Your task to perform on an android device: turn pop-ups off in chrome Image 0: 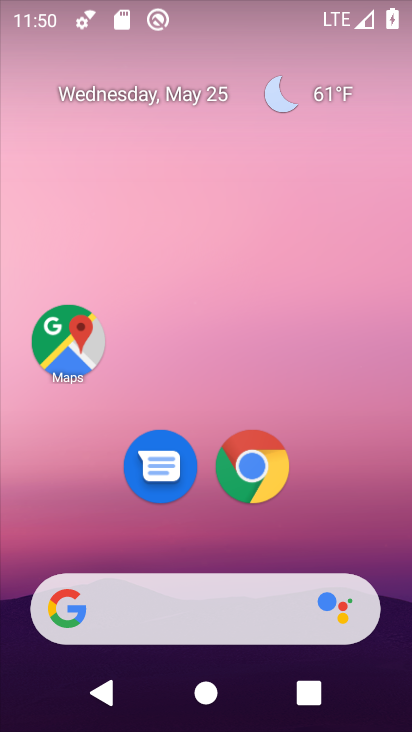
Step 0: drag from (240, 543) to (312, 57)
Your task to perform on an android device: turn pop-ups off in chrome Image 1: 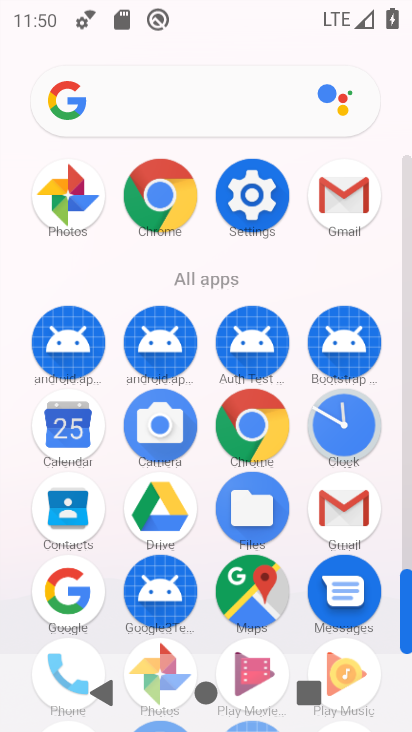
Step 1: click (178, 205)
Your task to perform on an android device: turn pop-ups off in chrome Image 2: 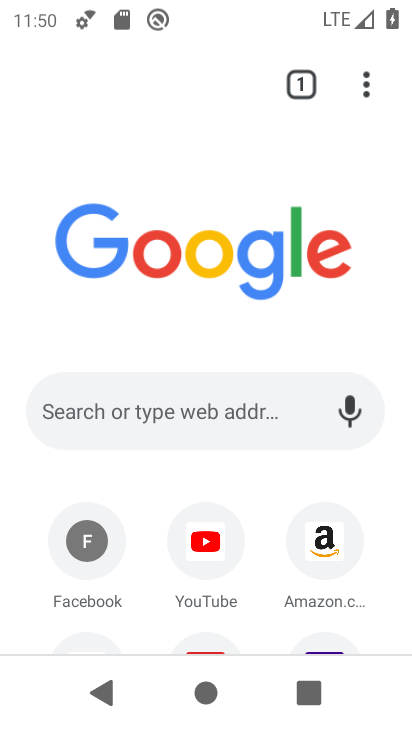
Step 2: click (372, 76)
Your task to perform on an android device: turn pop-ups off in chrome Image 3: 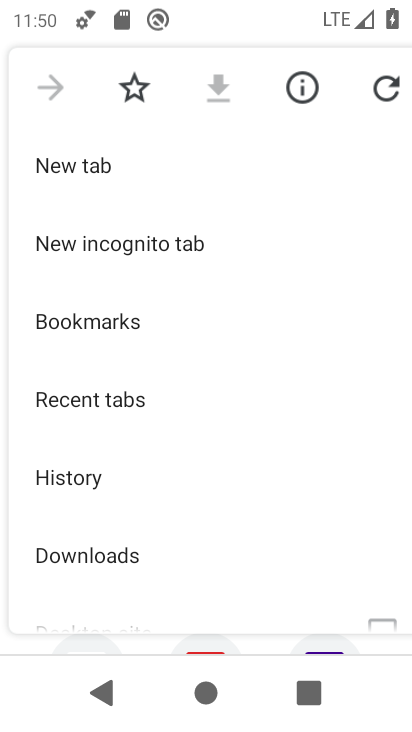
Step 3: drag from (160, 495) to (198, 149)
Your task to perform on an android device: turn pop-ups off in chrome Image 4: 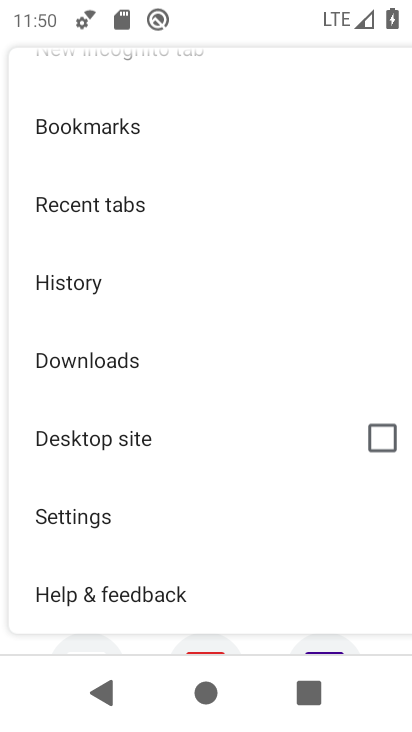
Step 4: click (80, 526)
Your task to perform on an android device: turn pop-ups off in chrome Image 5: 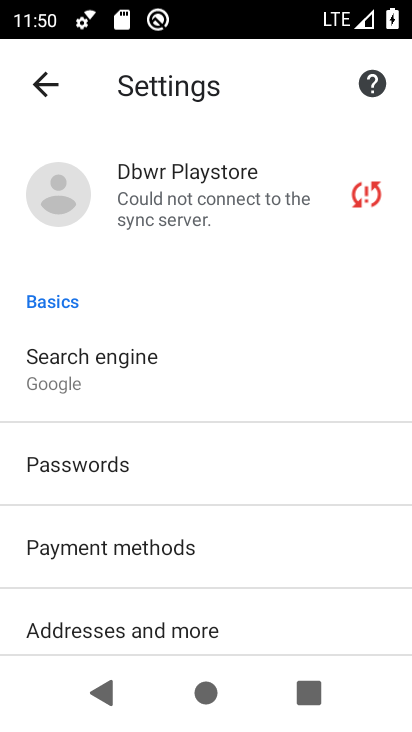
Step 5: drag from (202, 564) to (287, 257)
Your task to perform on an android device: turn pop-ups off in chrome Image 6: 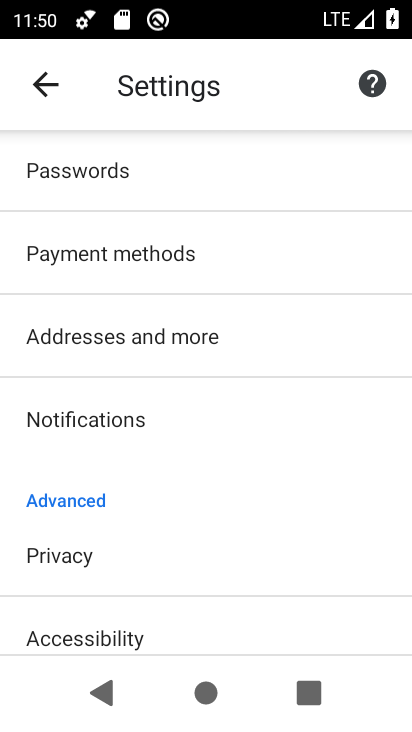
Step 6: drag from (225, 500) to (257, 351)
Your task to perform on an android device: turn pop-ups off in chrome Image 7: 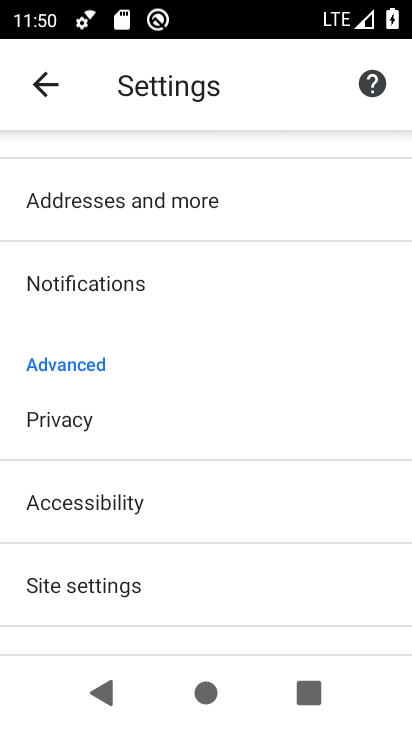
Step 7: drag from (138, 580) to (178, 388)
Your task to perform on an android device: turn pop-ups off in chrome Image 8: 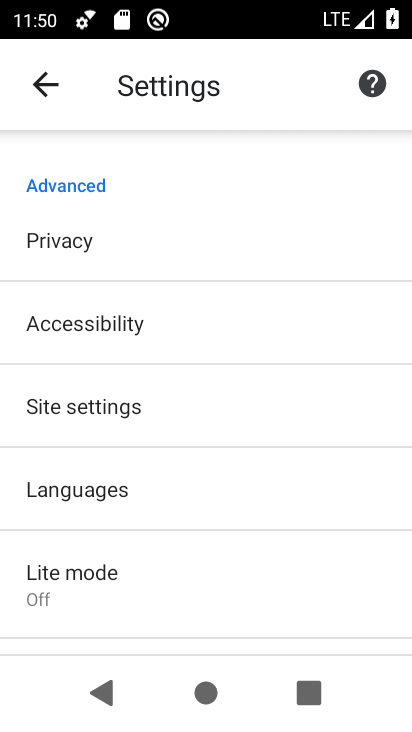
Step 8: click (128, 408)
Your task to perform on an android device: turn pop-ups off in chrome Image 9: 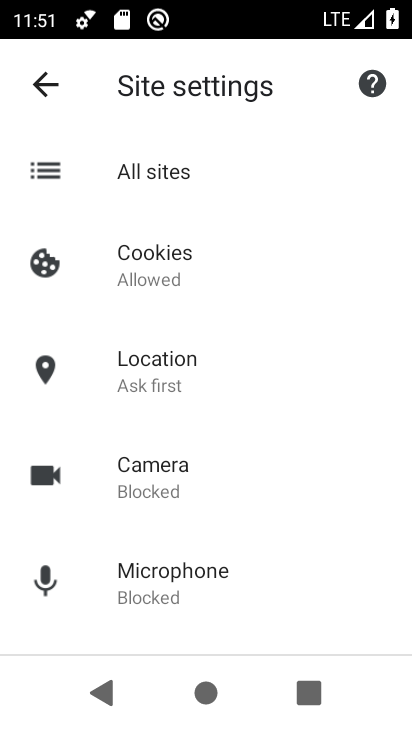
Step 9: drag from (209, 540) to (255, 291)
Your task to perform on an android device: turn pop-ups off in chrome Image 10: 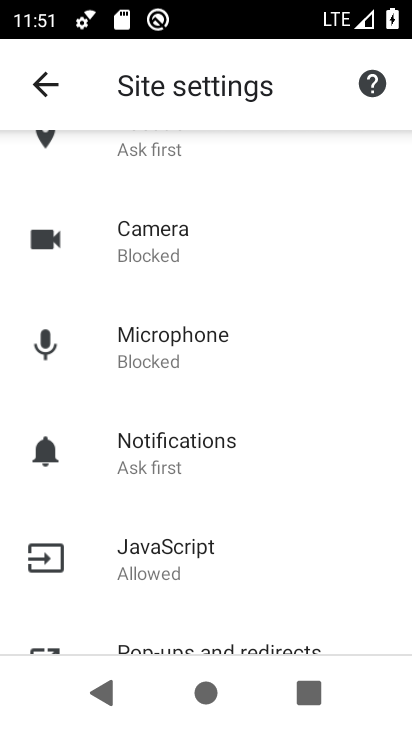
Step 10: drag from (190, 534) to (239, 263)
Your task to perform on an android device: turn pop-ups off in chrome Image 11: 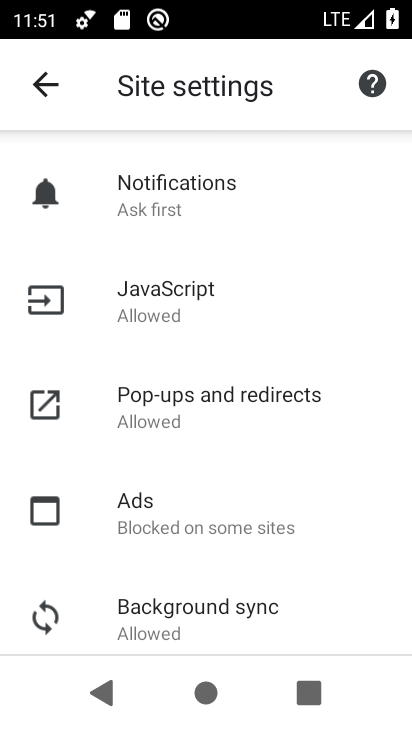
Step 11: click (213, 411)
Your task to perform on an android device: turn pop-ups off in chrome Image 12: 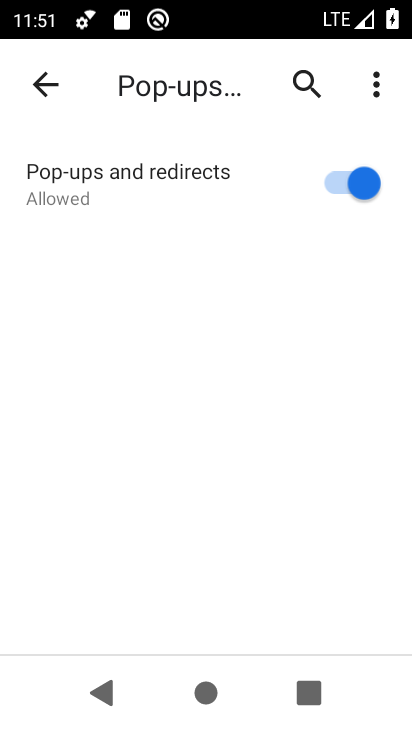
Step 12: click (320, 177)
Your task to perform on an android device: turn pop-ups off in chrome Image 13: 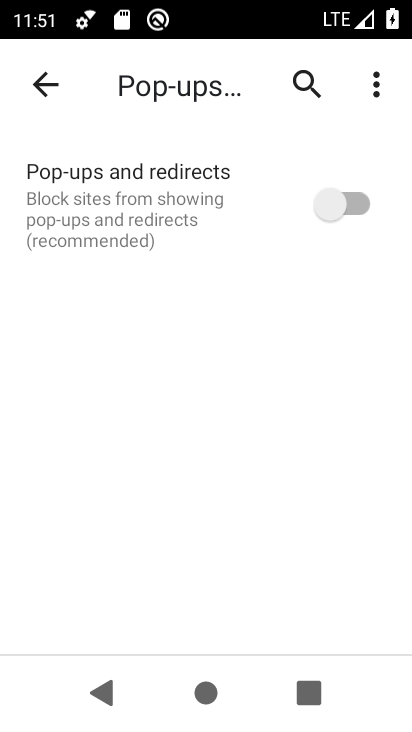
Step 13: task complete